Your task to perform on an android device: Open eBay Image 0: 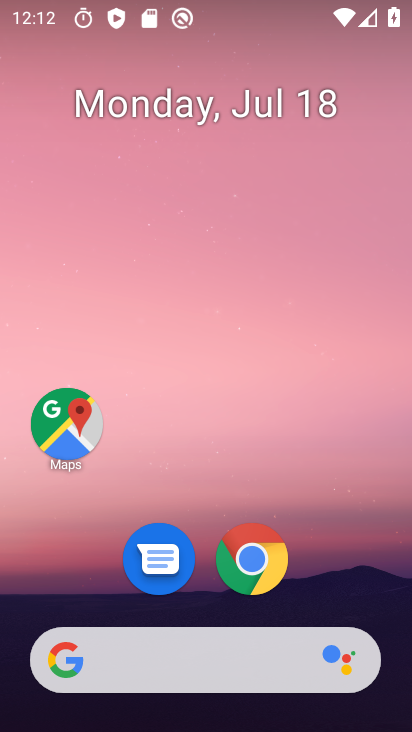
Step 0: click (250, 554)
Your task to perform on an android device: Open eBay Image 1: 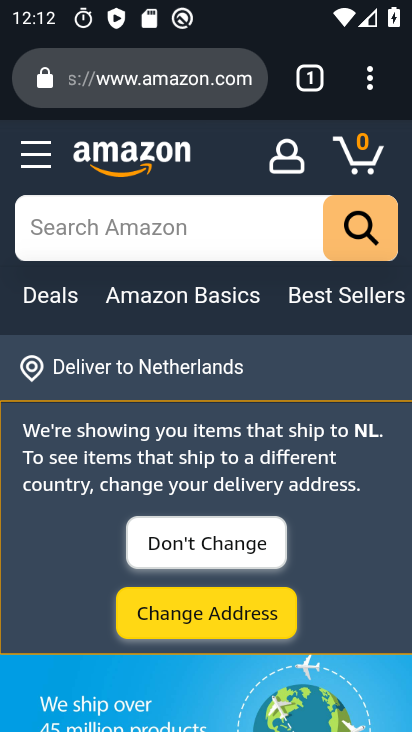
Step 1: click (308, 85)
Your task to perform on an android device: Open eBay Image 2: 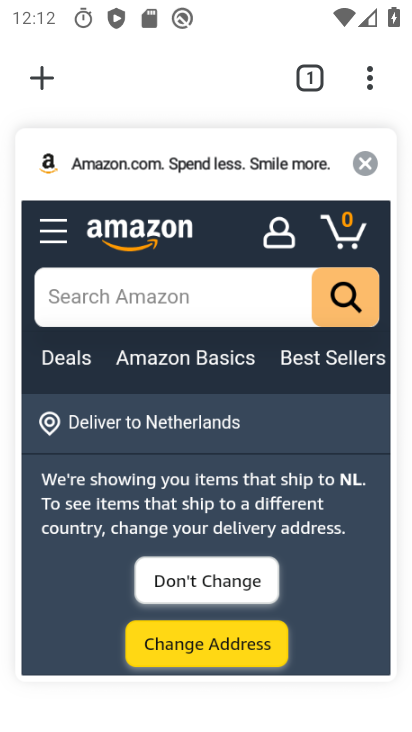
Step 2: click (36, 73)
Your task to perform on an android device: Open eBay Image 3: 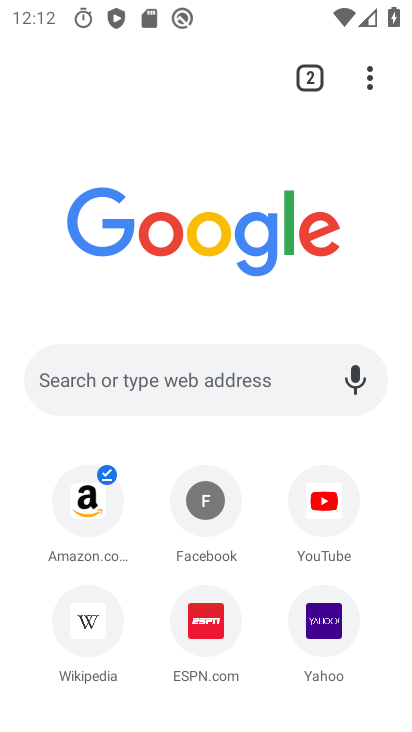
Step 3: click (170, 370)
Your task to perform on an android device: Open eBay Image 4: 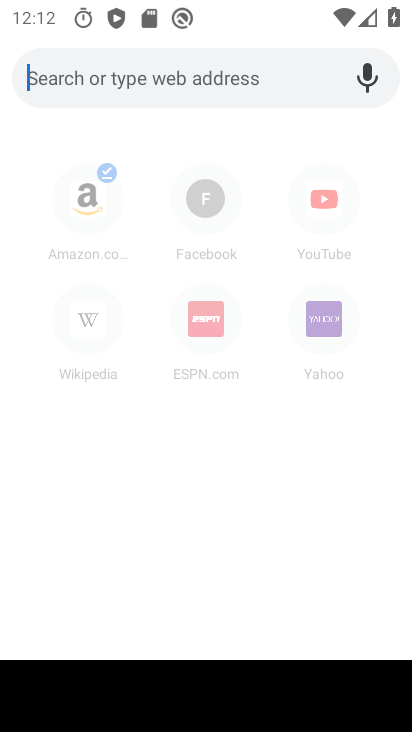
Step 4: click (103, 71)
Your task to perform on an android device: Open eBay Image 5: 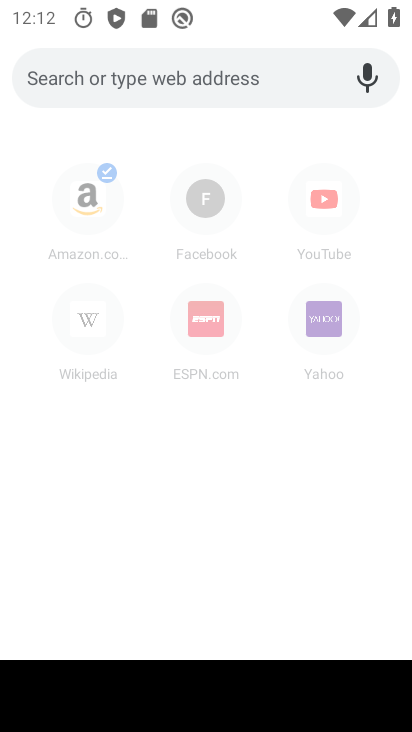
Step 5: type "ebay"
Your task to perform on an android device: Open eBay Image 6: 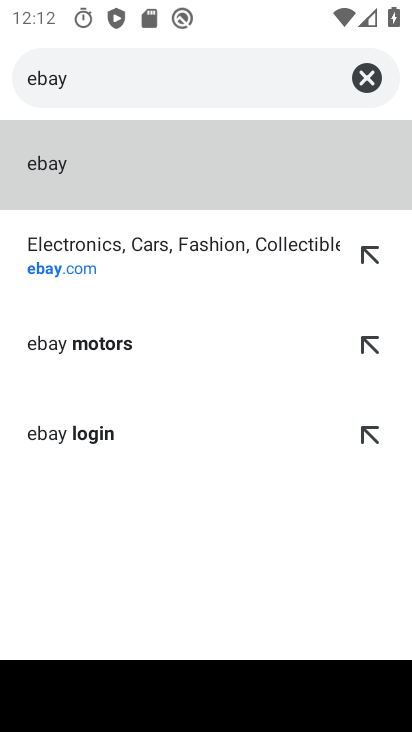
Step 6: click (144, 263)
Your task to perform on an android device: Open eBay Image 7: 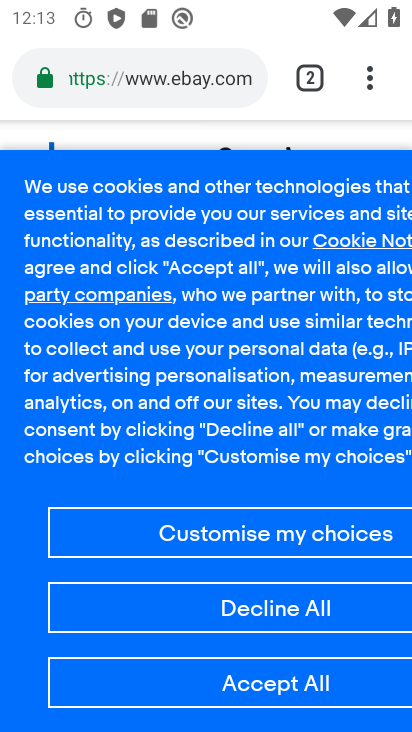
Step 7: task complete